Your task to perform on an android device: Is it going to rain today? Image 0: 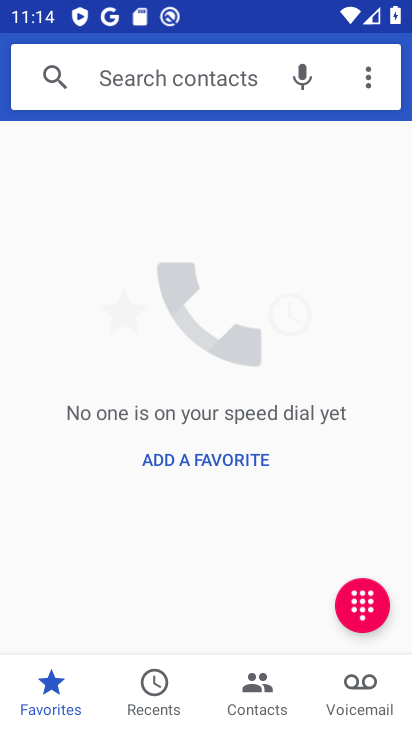
Step 0: press home button
Your task to perform on an android device: Is it going to rain today? Image 1: 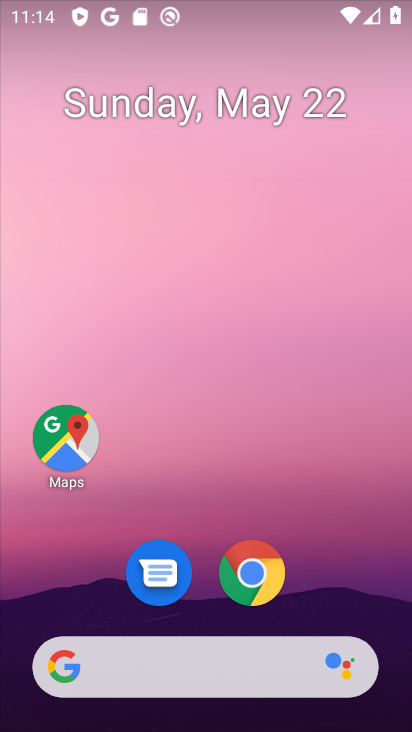
Step 1: click (74, 671)
Your task to perform on an android device: Is it going to rain today? Image 2: 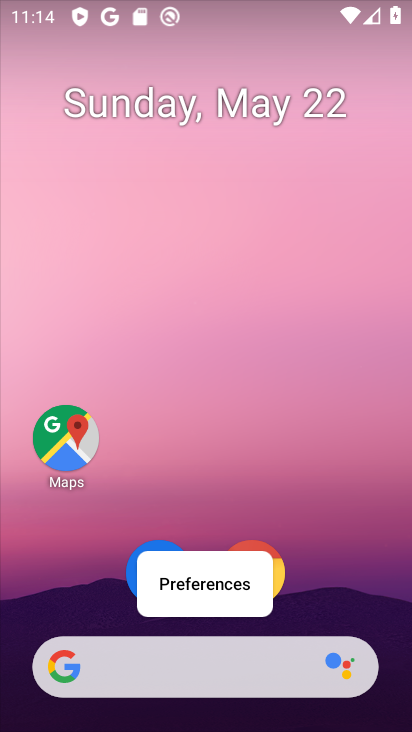
Step 2: click (60, 667)
Your task to perform on an android device: Is it going to rain today? Image 3: 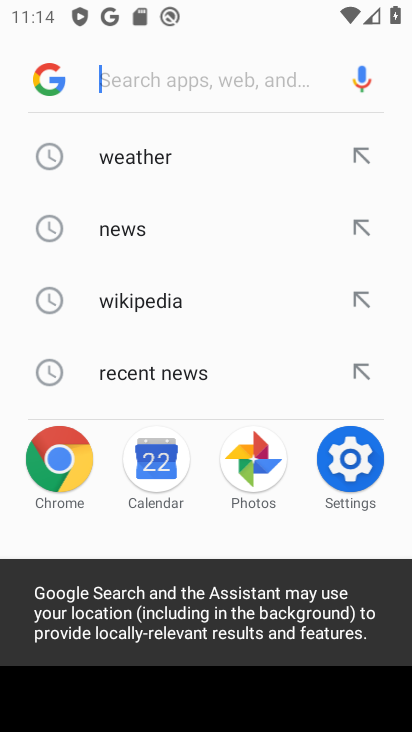
Step 3: click (144, 163)
Your task to perform on an android device: Is it going to rain today? Image 4: 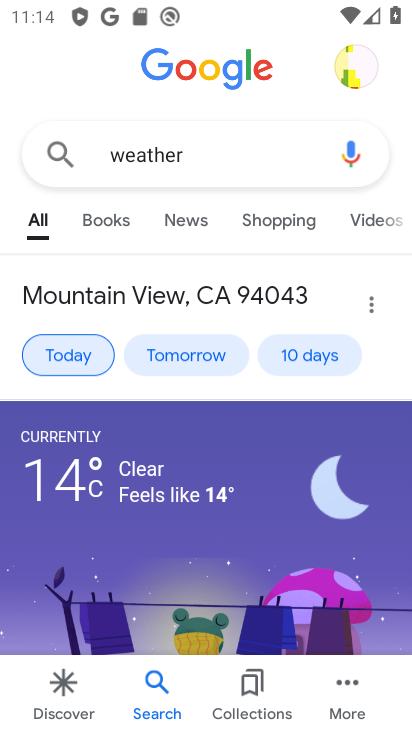
Step 4: task complete